Your task to perform on an android device: Go to accessibility settings Image 0: 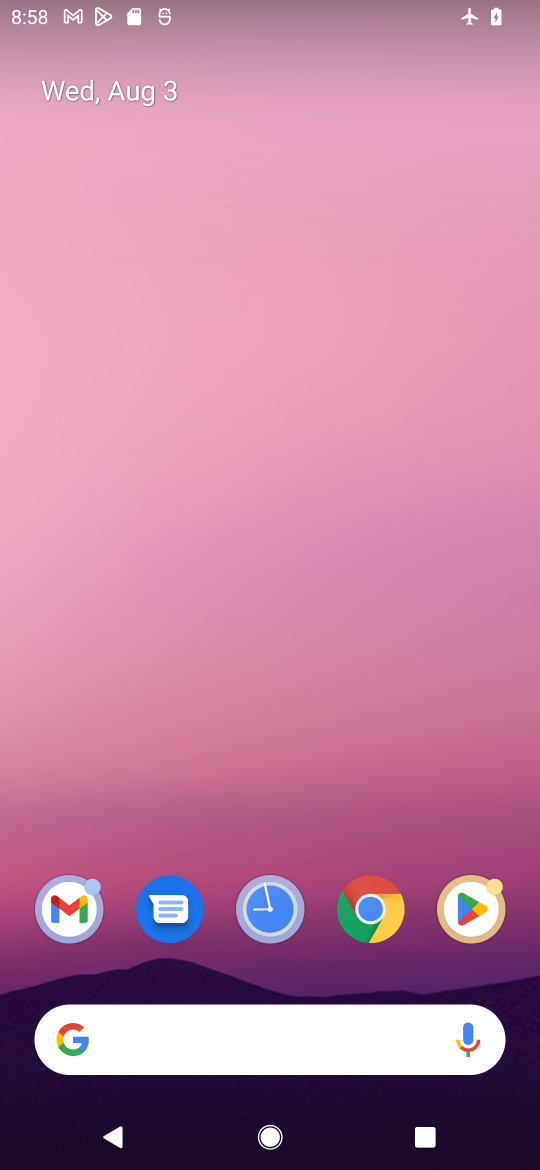
Step 0: drag from (344, 810) to (351, 328)
Your task to perform on an android device: Go to accessibility settings Image 1: 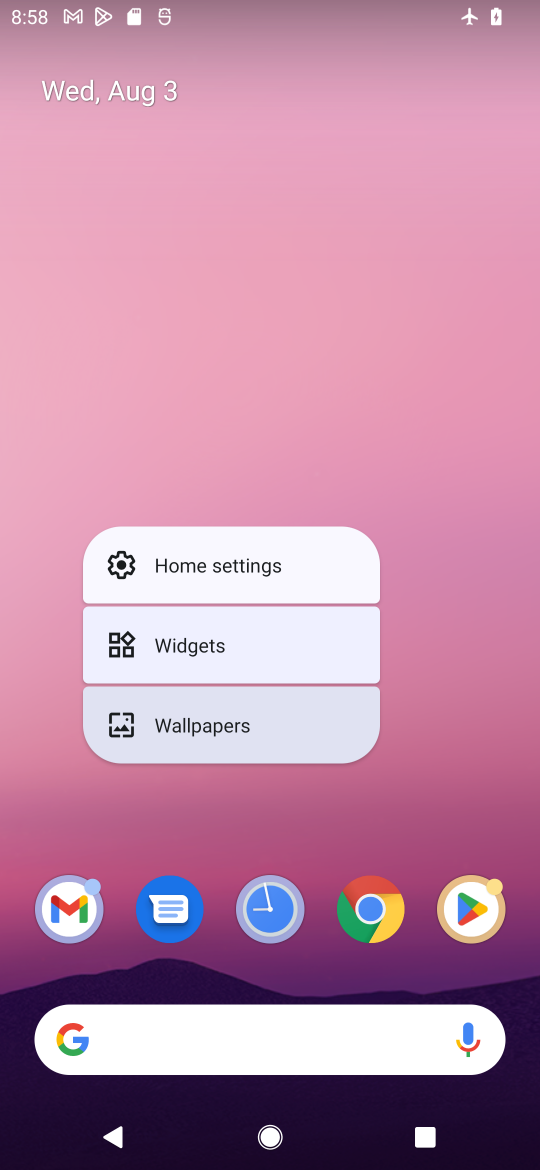
Step 1: click (467, 638)
Your task to perform on an android device: Go to accessibility settings Image 2: 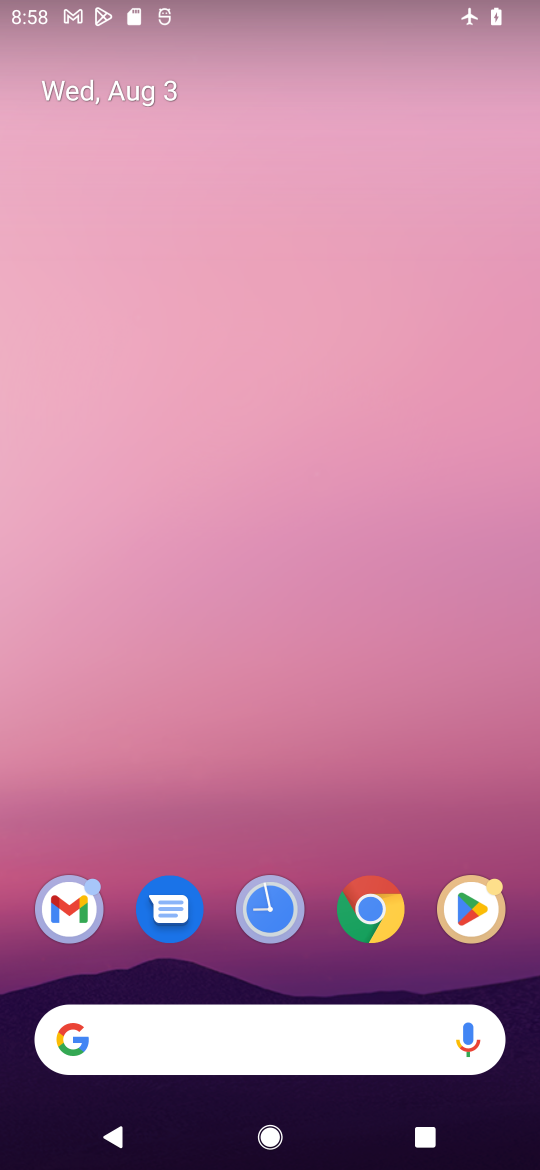
Step 2: drag from (405, 850) to (437, 210)
Your task to perform on an android device: Go to accessibility settings Image 3: 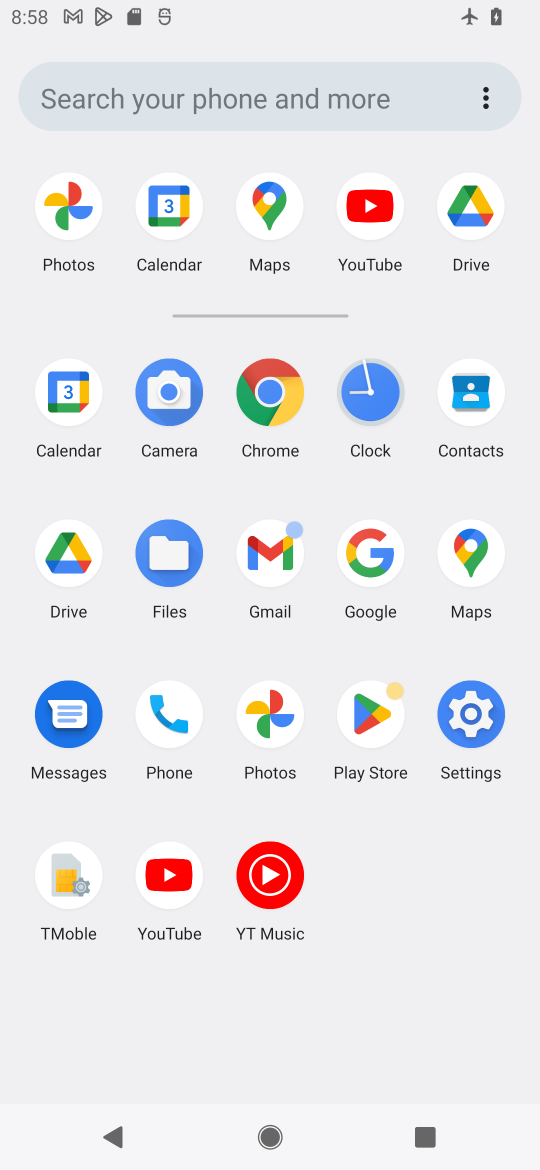
Step 3: click (470, 719)
Your task to perform on an android device: Go to accessibility settings Image 4: 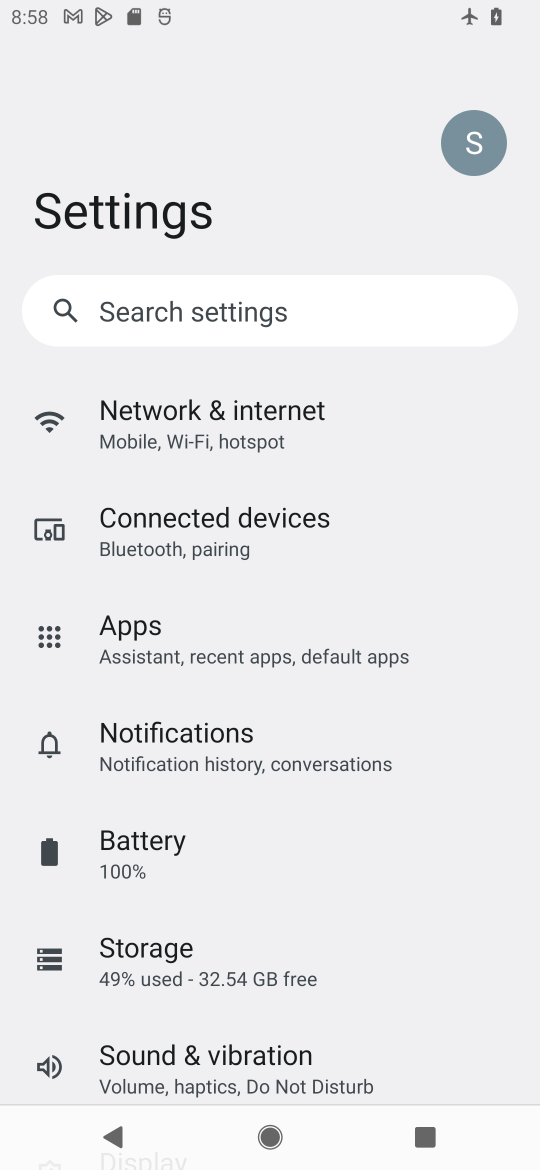
Step 4: drag from (470, 882) to (483, 759)
Your task to perform on an android device: Go to accessibility settings Image 5: 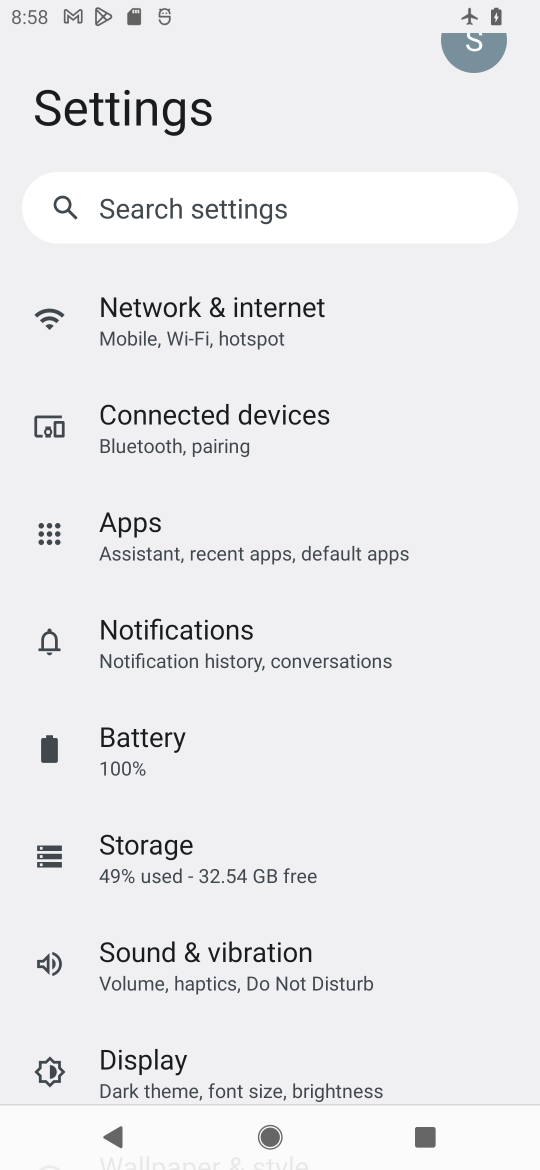
Step 5: drag from (480, 933) to (486, 783)
Your task to perform on an android device: Go to accessibility settings Image 6: 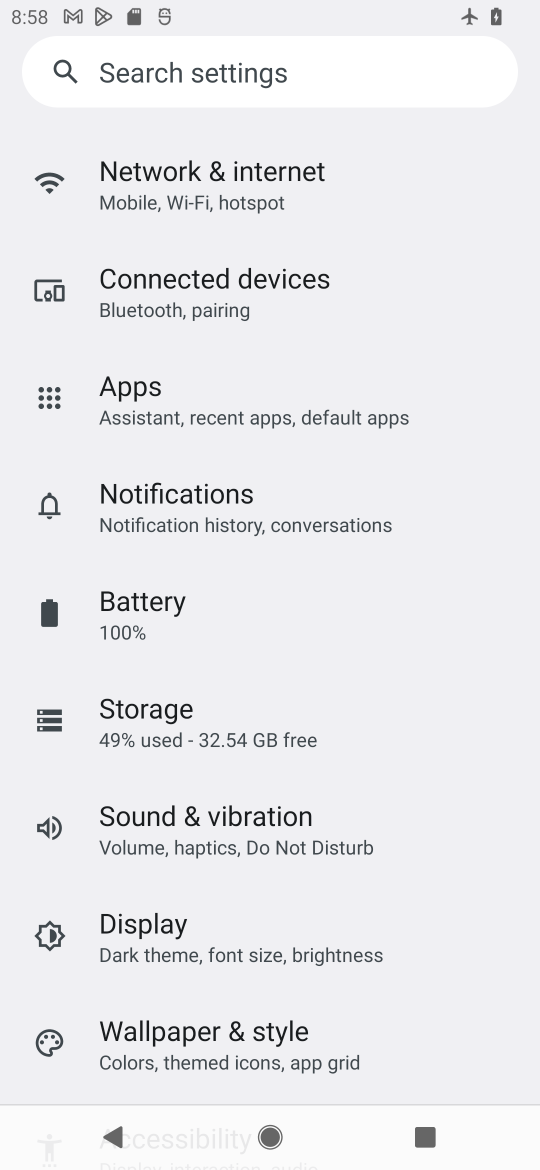
Step 6: drag from (490, 958) to (494, 801)
Your task to perform on an android device: Go to accessibility settings Image 7: 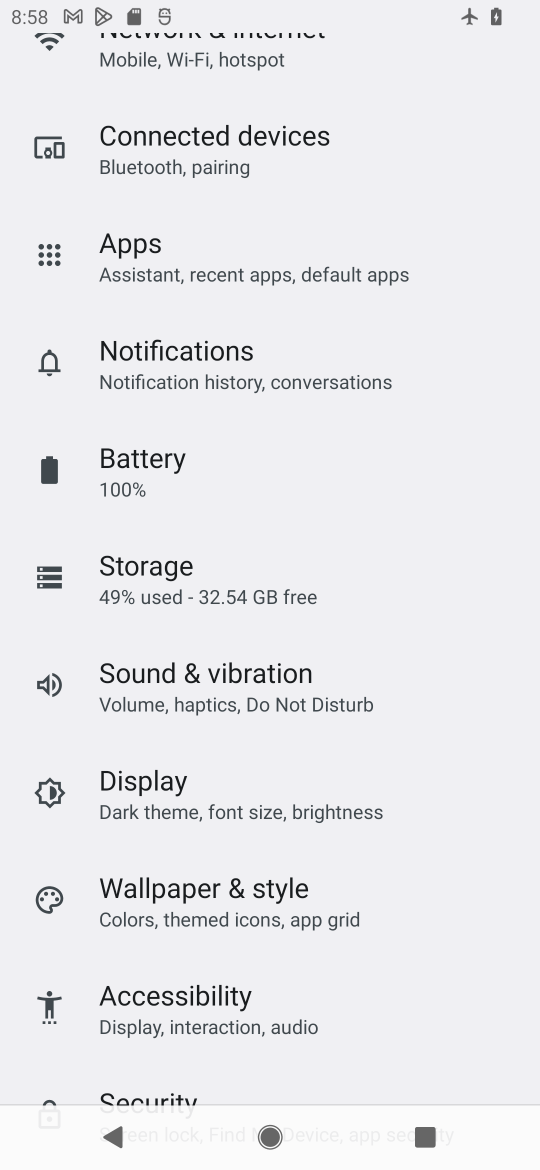
Step 7: drag from (444, 966) to (449, 788)
Your task to perform on an android device: Go to accessibility settings Image 8: 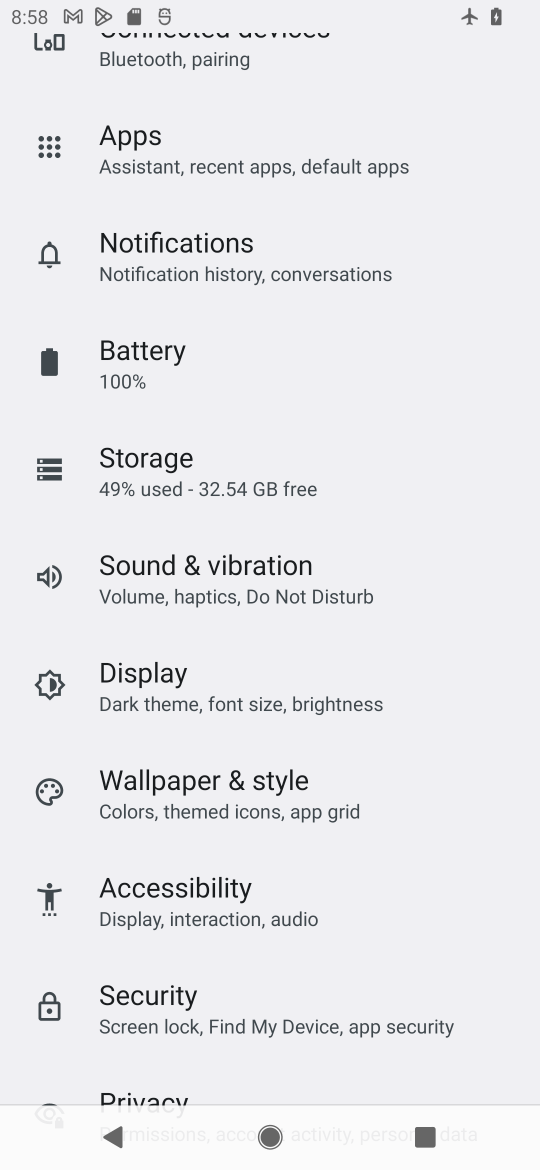
Step 8: drag from (419, 1061) to (442, 811)
Your task to perform on an android device: Go to accessibility settings Image 9: 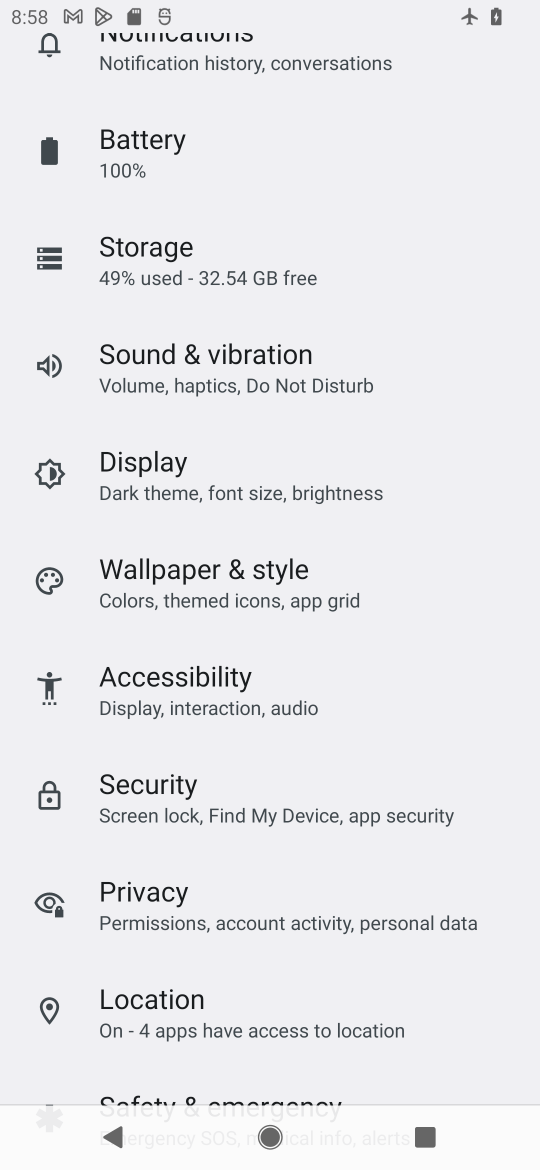
Step 9: drag from (449, 1000) to (443, 688)
Your task to perform on an android device: Go to accessibility settings Image 10: 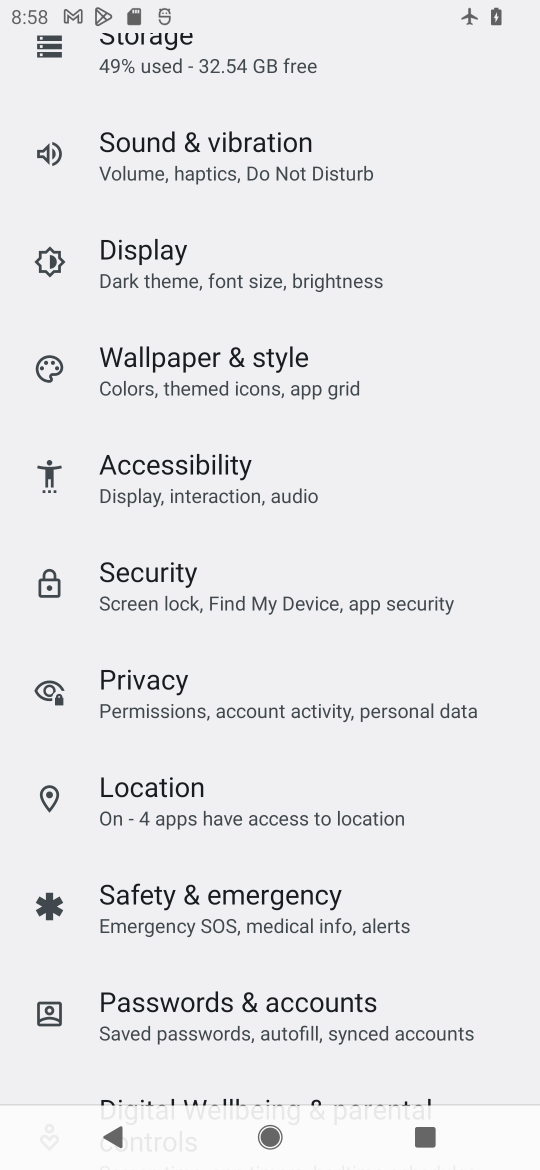
Step 10: drag from (470, 965) to (476, 799)
Your task to perform on an android device: Go to accessibility settings Image 11: 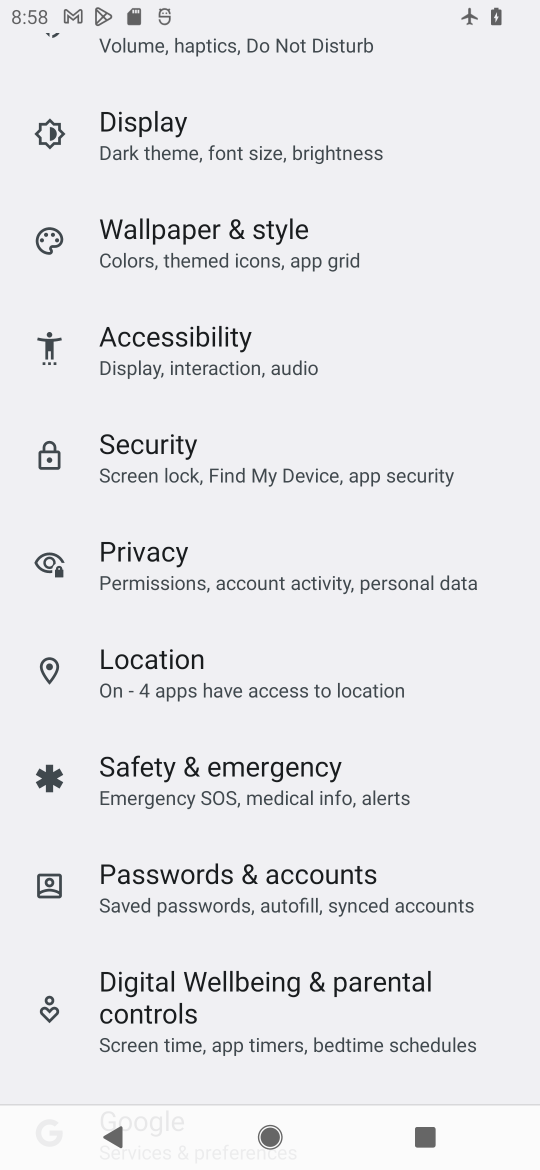
Step 11: drag from (471, 1062) to (483, 887)
Your task to perform on an android device: Go to accessibility settings Image 12: 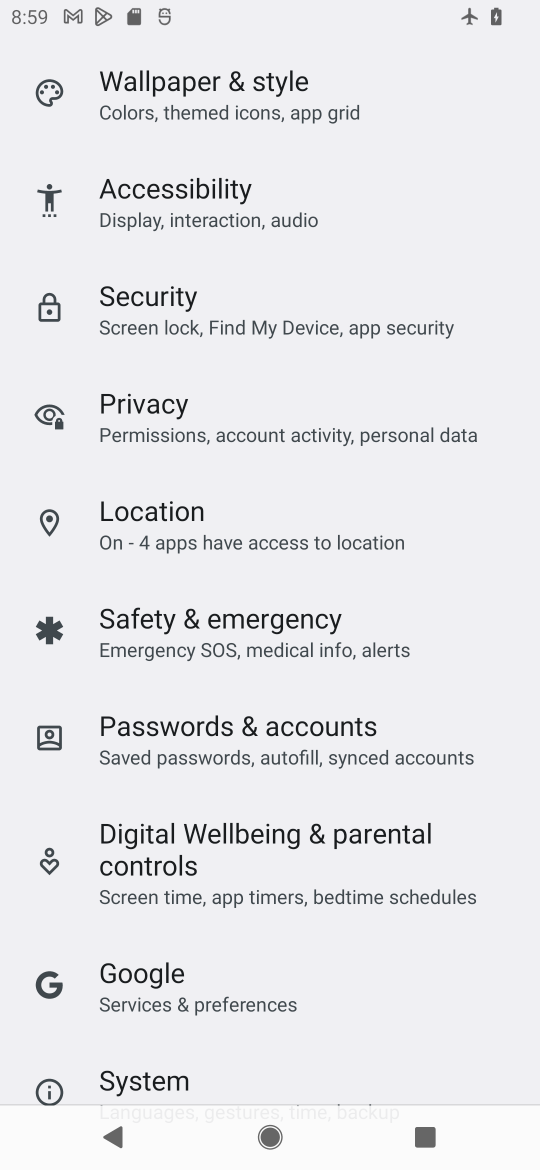
Step 12: drag from (488, 527) to (488, 626)
Your task to perform on an android device: Go to accessibility settings Image 13: 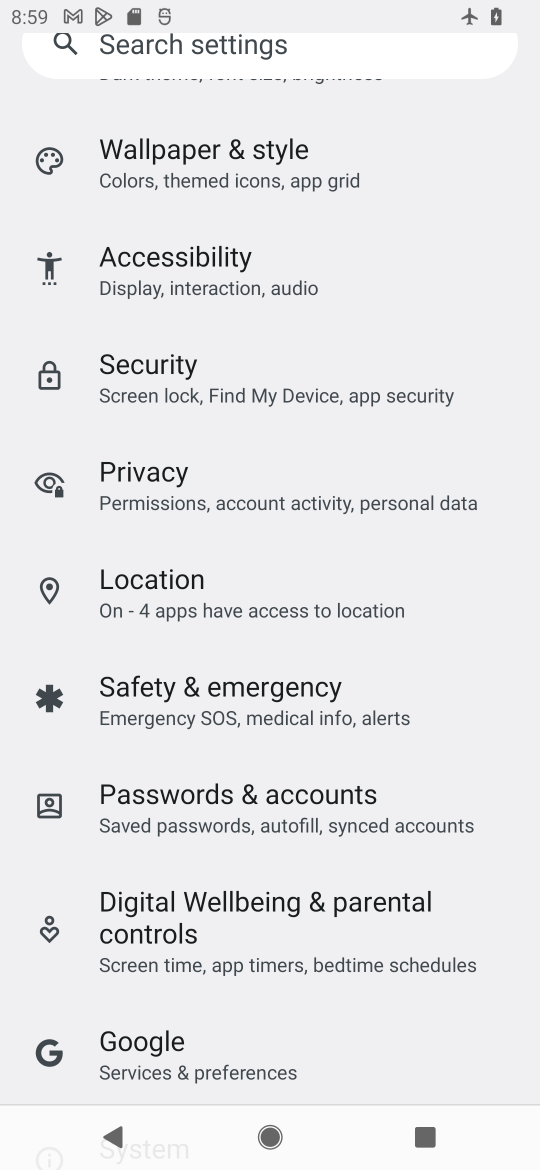
Step 13: drag from (499, 560) to (478, 683)
Your task to perform on an android device: Go to accessibility settings Image 14: 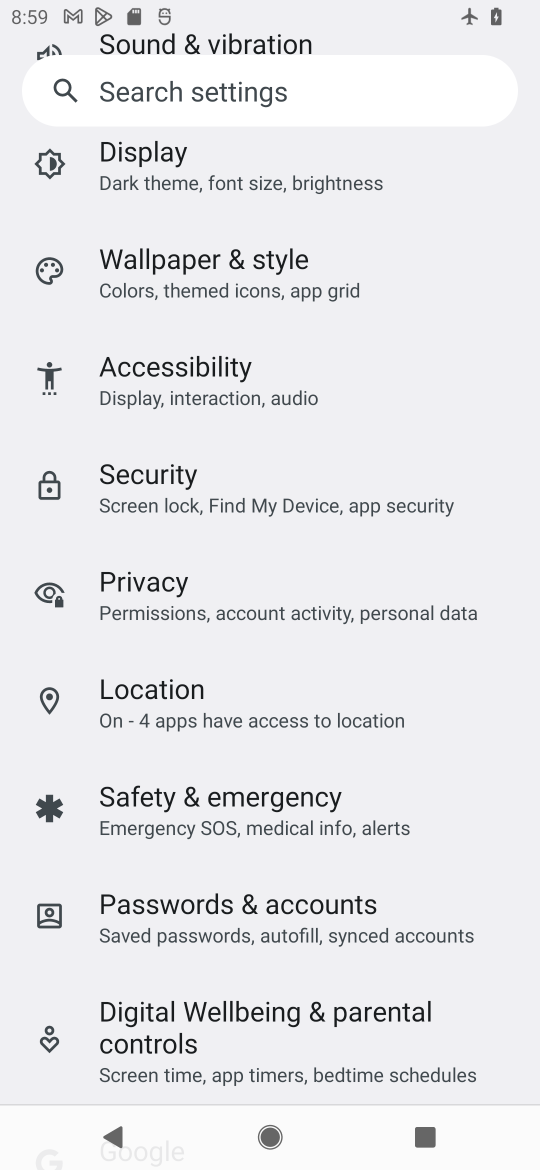
Step 14: drag from (490, 588) to (482, 744)
Your task to perform on an android device: Go to accessibility settings Image 15: 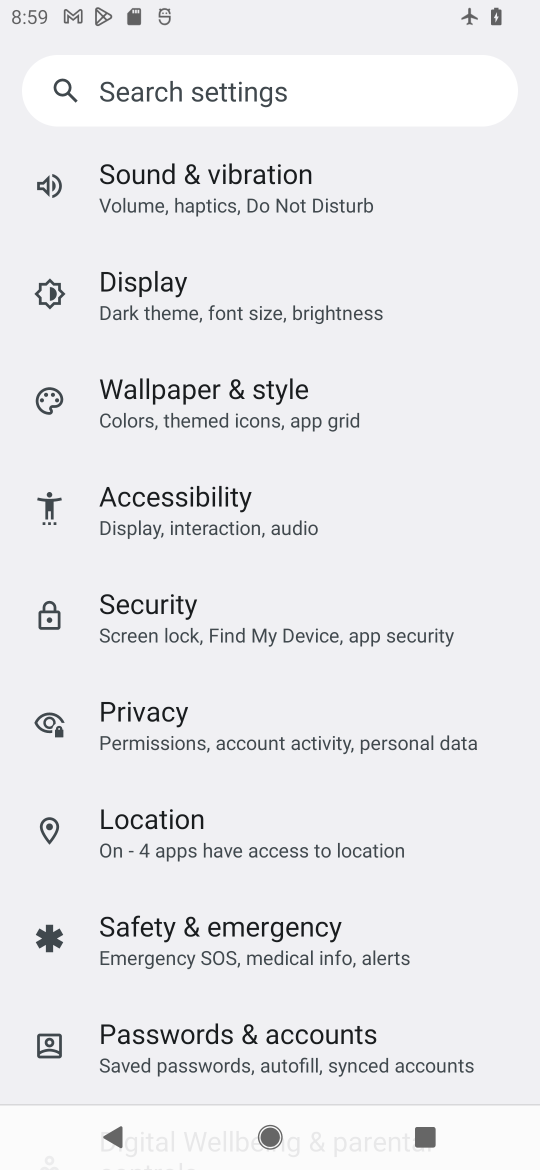
Step 15: drag from (482, 585) to (473, 766)
Your task to perform on an android device: Go to accessibility settings Image 16: 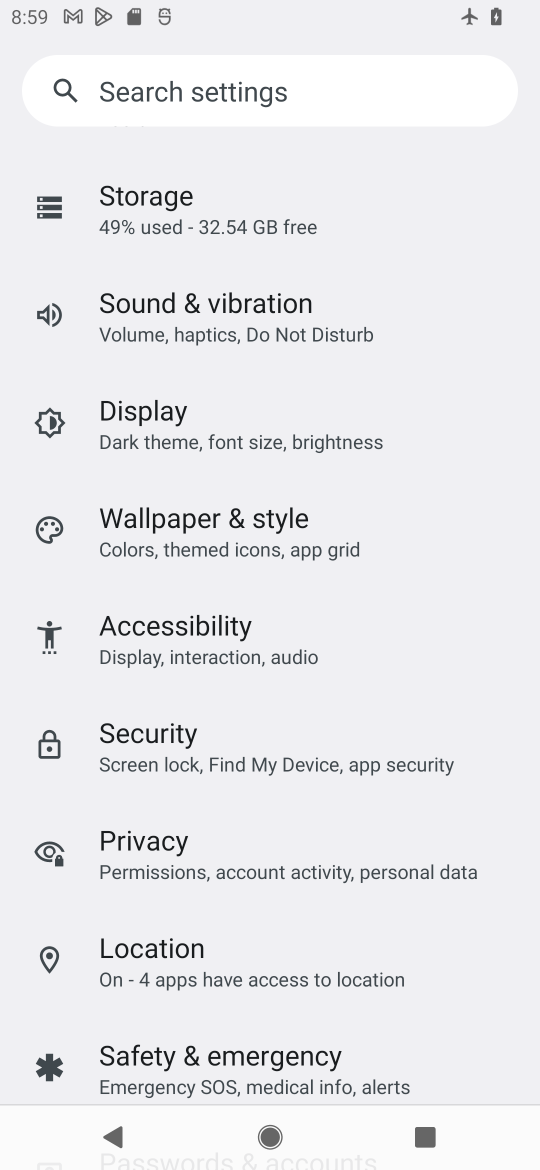
Step 16: drag from (499, 555) to (484, 720)
Your task to perform on an android device: Go to accessibility settings Image 17: 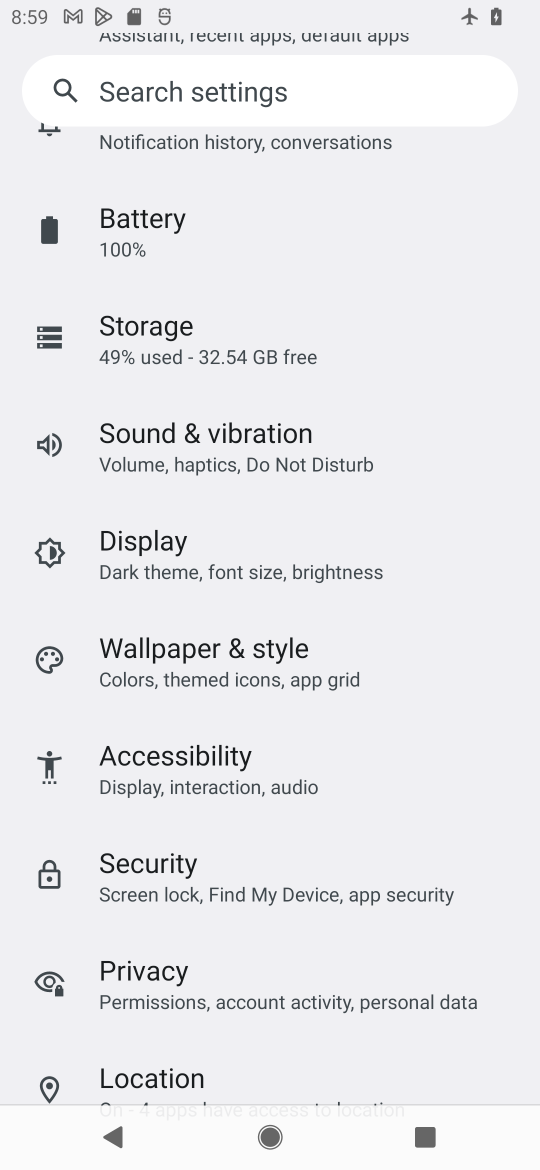
Step 17: click (252, 777)
Your task to perform on an android device: Go to accessibility settings Image 18: 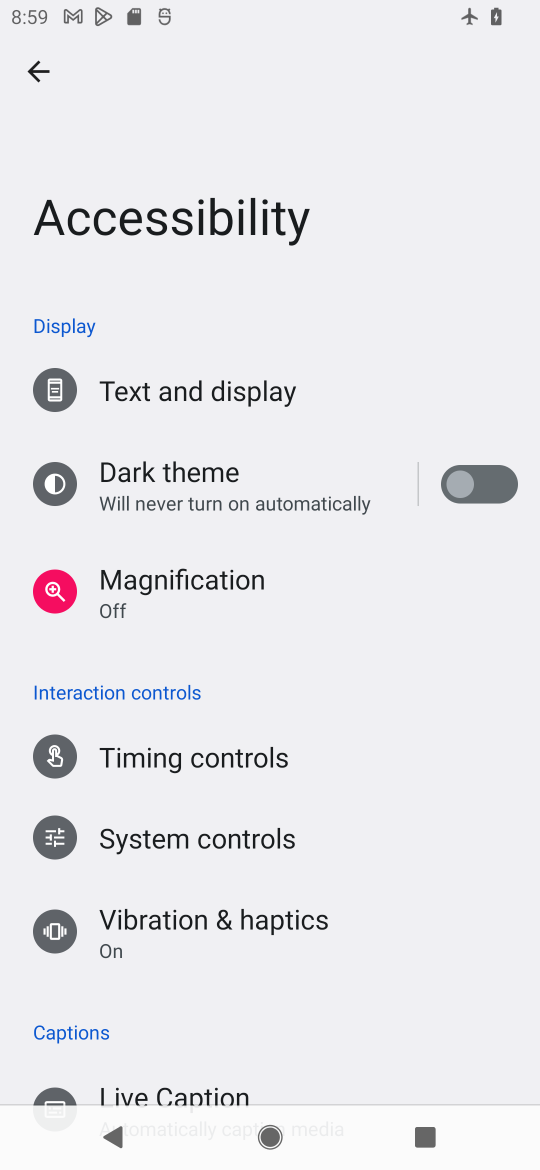
Step 18: task complete